Your task to perform on an android device: uninstall "YouTube Kids" Image 0: 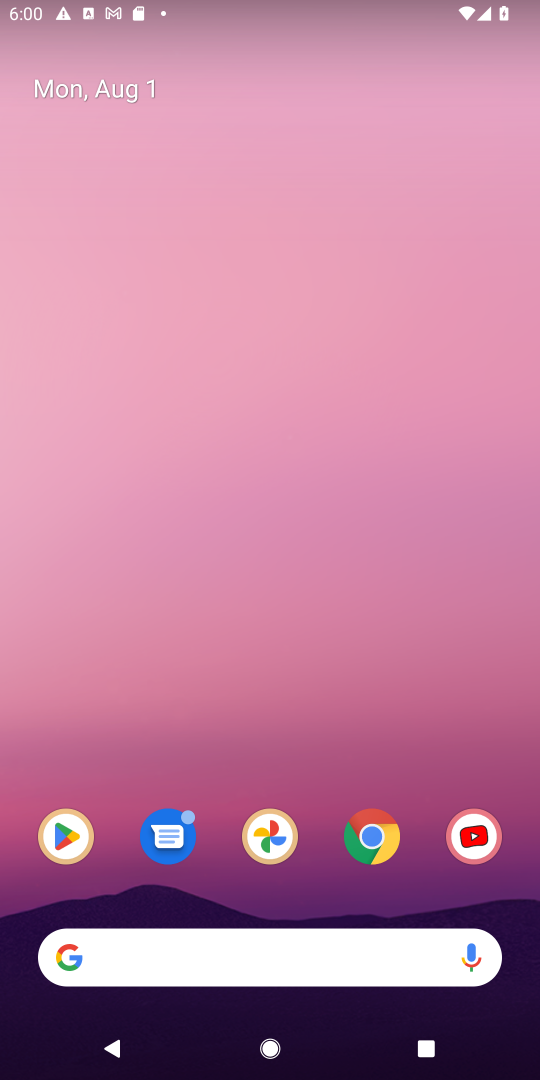
Step 0: press home button
Your task to perform on an android device: uninstall "YouTube Kids" Image 1: 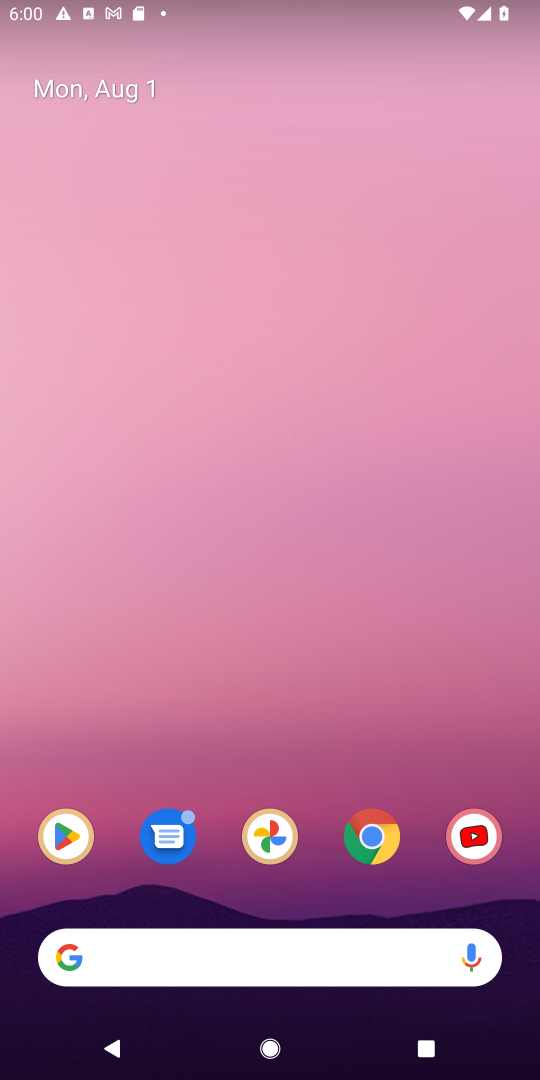
Step 1: click (58, 838)
Your task to perform on an android device: uninstall "YouTube Kids" Image 2: 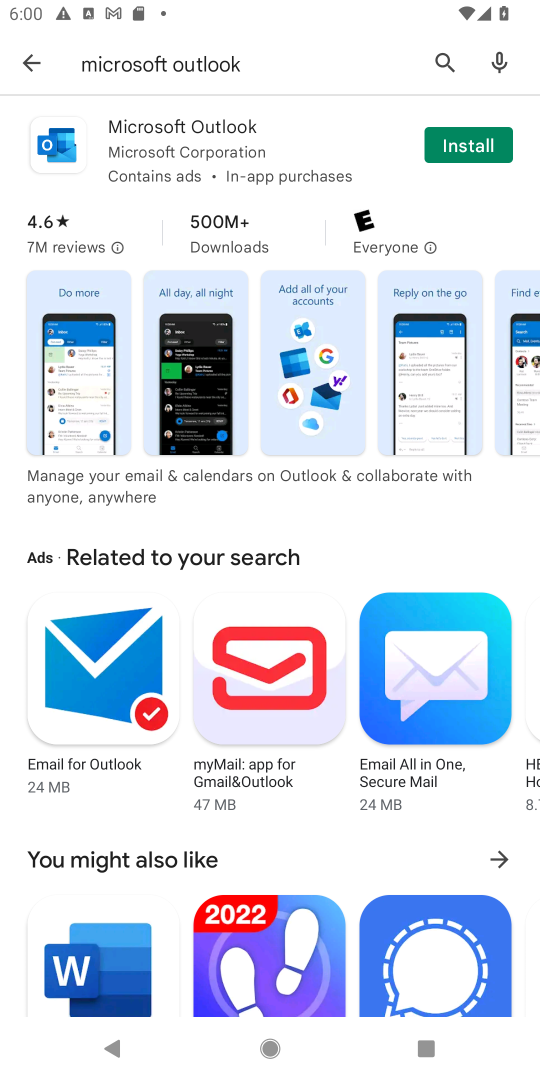
Step 2: click (438, 59)
Your task to perform on an android device: uninstall "YouTube Kids" Image 3: 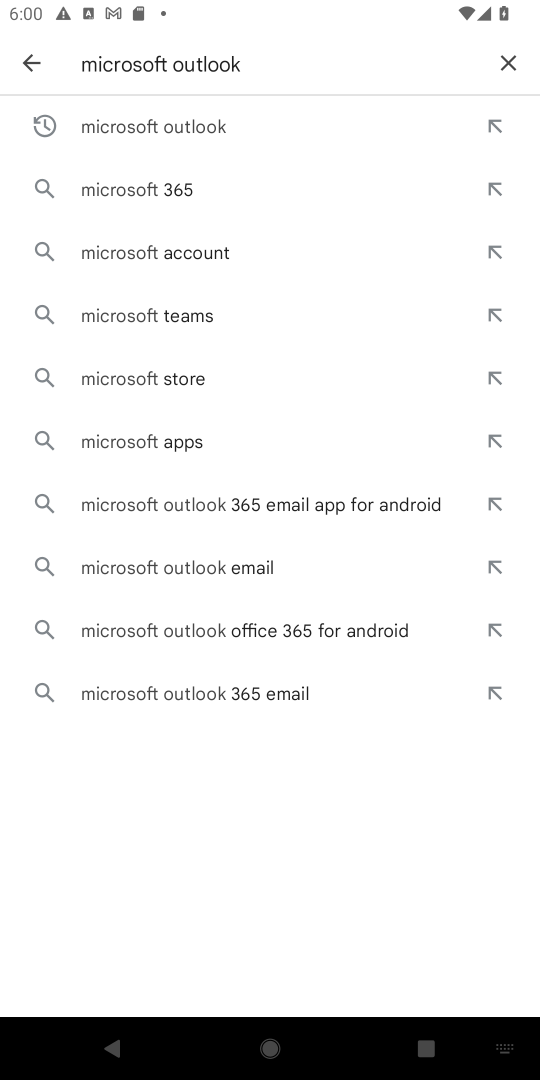
Step 3: click (520, 50)
Your task to perform on an android device: uninstall "YouTube Kids" Image 4: 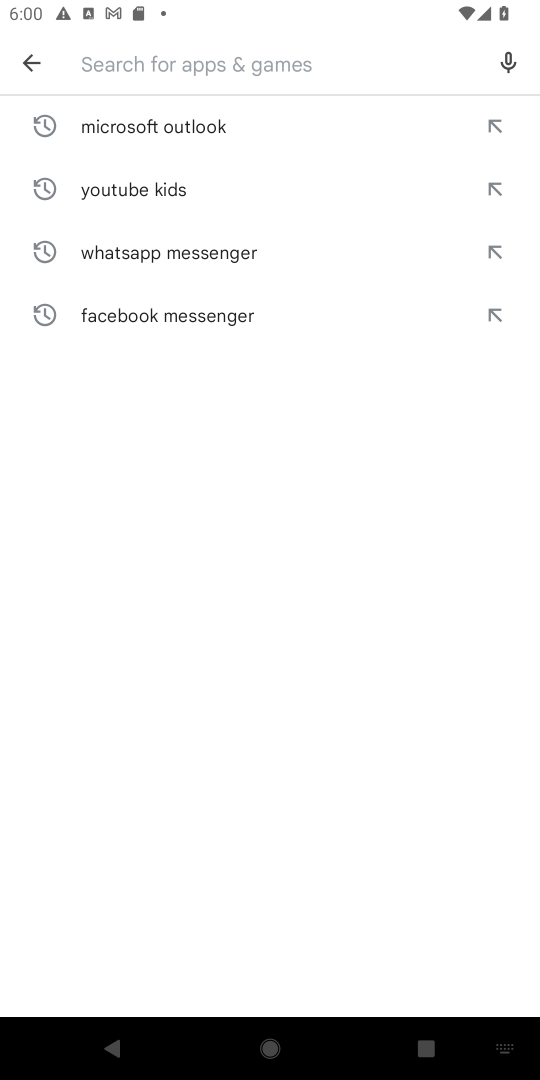
Step 4: type "YouTube Kids"
Your task to perform on an android device: uninstall "YouTube Kids" Image 5: 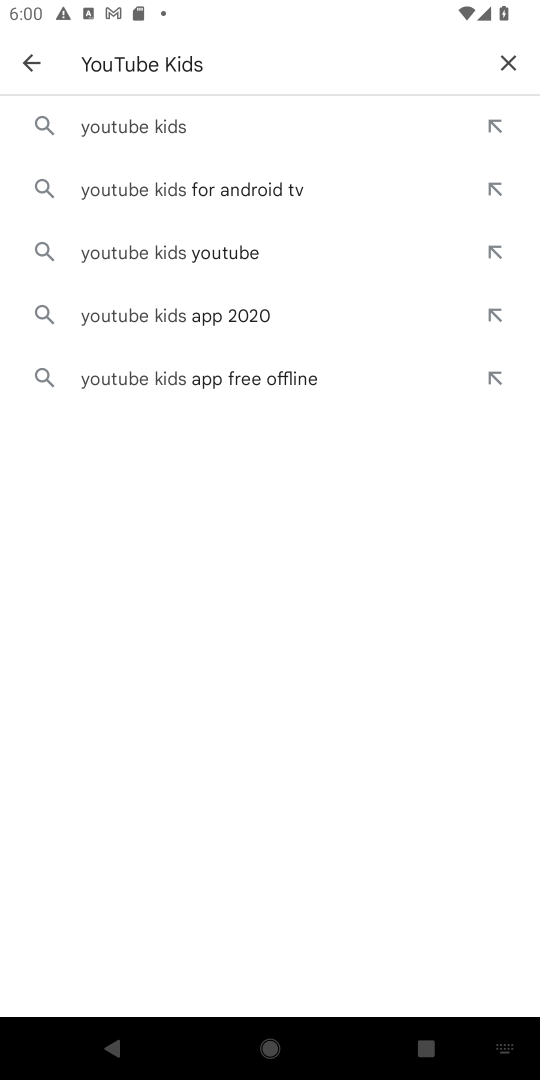
Step 5: click (141, 119)
Your task to perform on an android device: uninstall "YouTube Kids" Image 6: 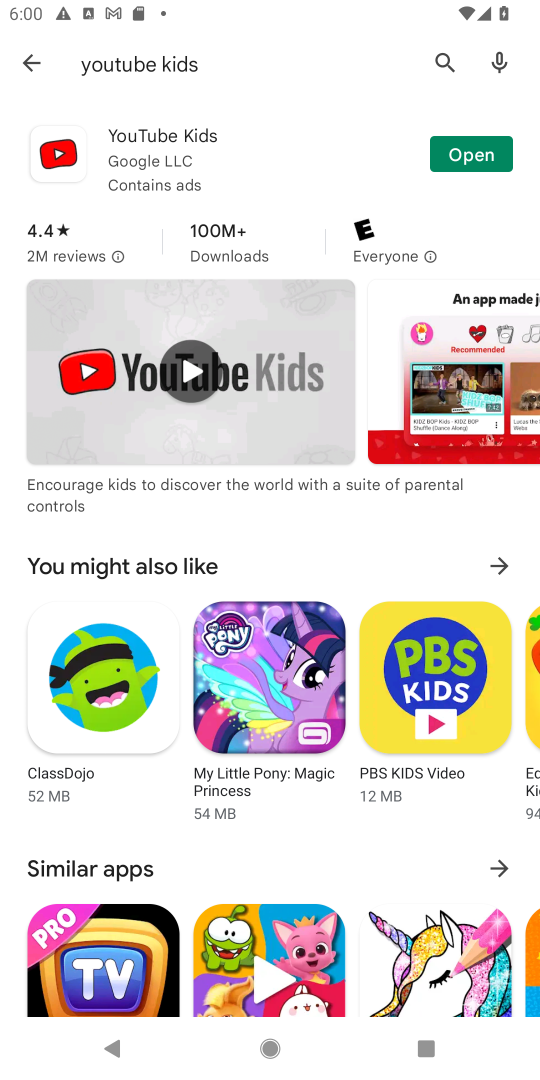
Step 6: click (154, 150)
Your task to perform on an android device: uninstall "YouTube Kids" Image 7: 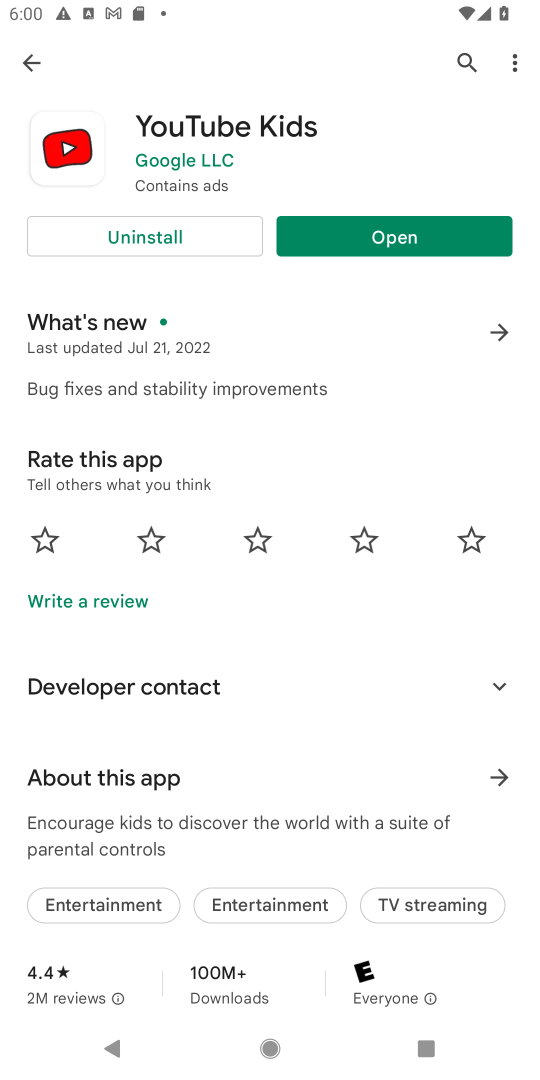
Step 7: click (175, 232)
Your task to perform on an android device: uninstall "YouTube Kids" Image 8: 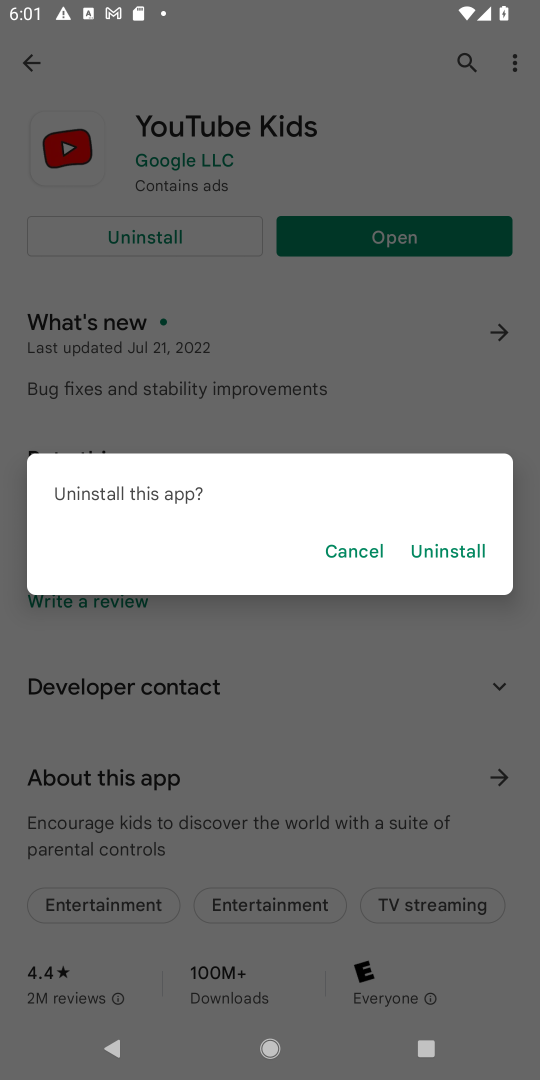
Step 8: click (442, 550)
Your task to perform on an android device: uninstall "YouTube Kids" Image 9: 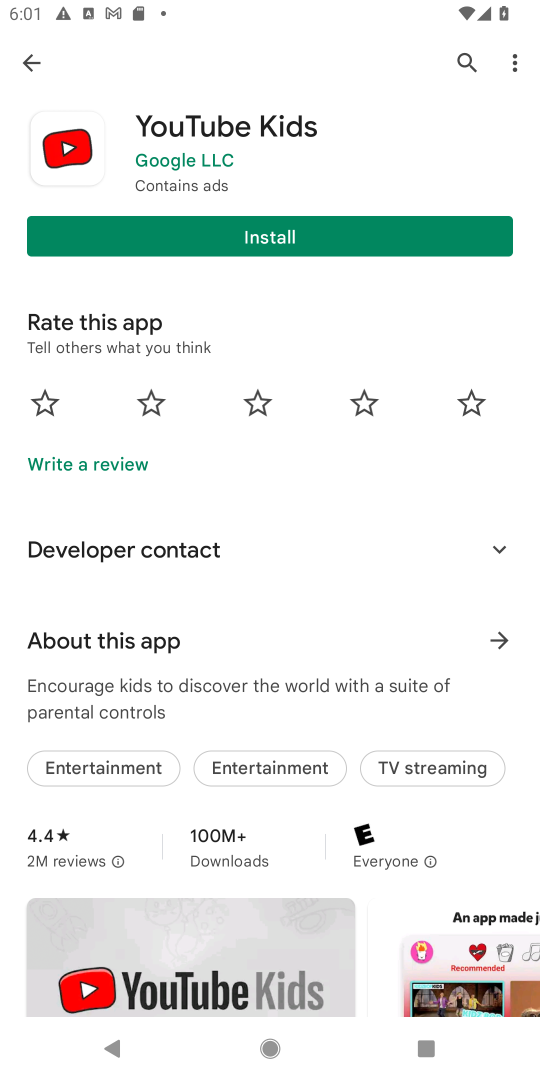
Step 9: task complete